Your task to perform on an android device: check battery use Image 0: 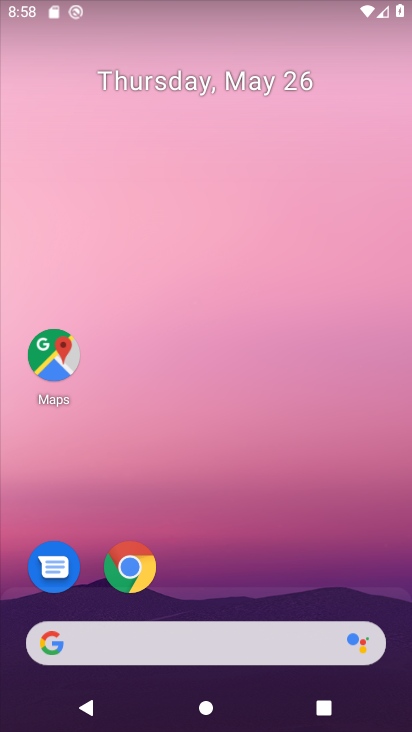
Step 0: drag from (201, 531) to (354, 67)
Your task to perform on an android device: check battery use Image 1: 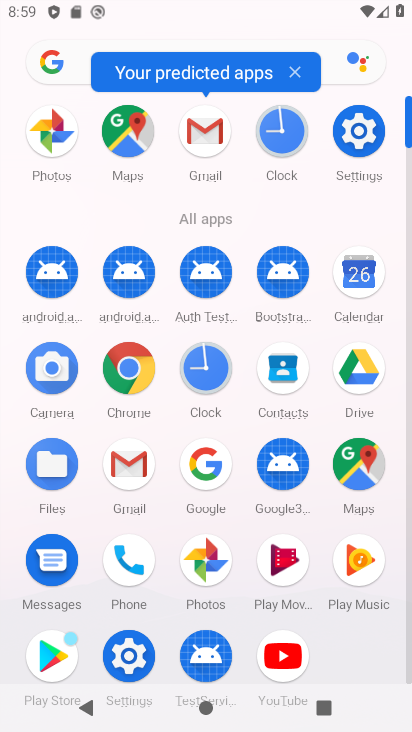
Step 1: click (356, 134)
Your task to perform on an android device: check battery use Image 2: 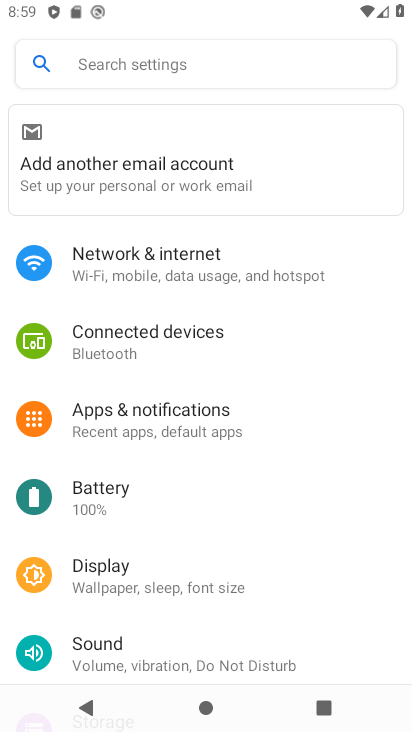
Step 2: click (89, 512)
Your task to perform on an android device: check battery use Image 3: 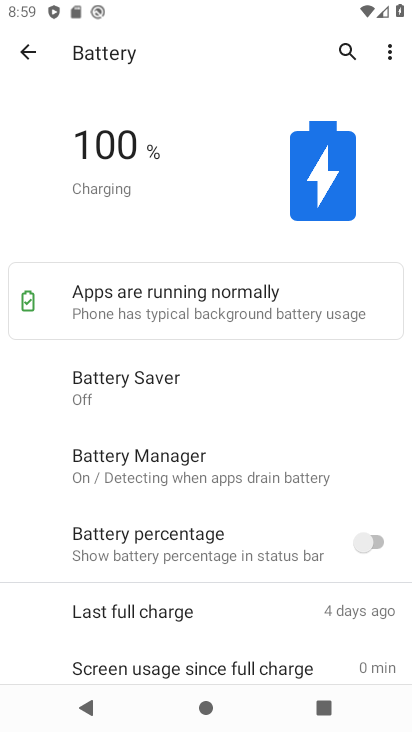
Step 3: task complete